Your task to perform on an android device: turn on priority inbox in the gmail app Image 0: 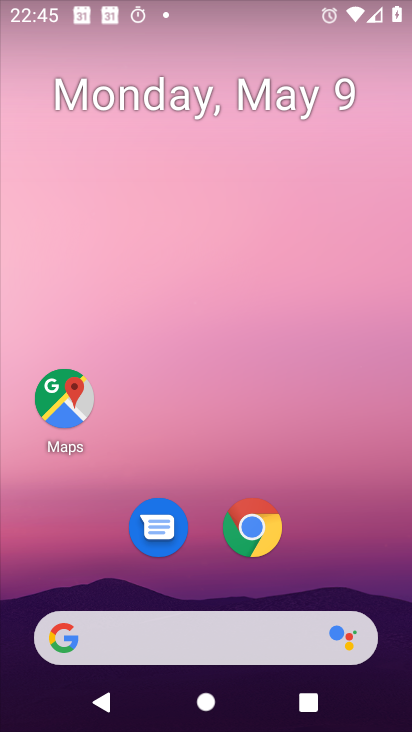
Step 0: drag from (296, 542) to (371, 63)
Your task to perform on an android device: turn on priority inbox in the gmail app Image 1: 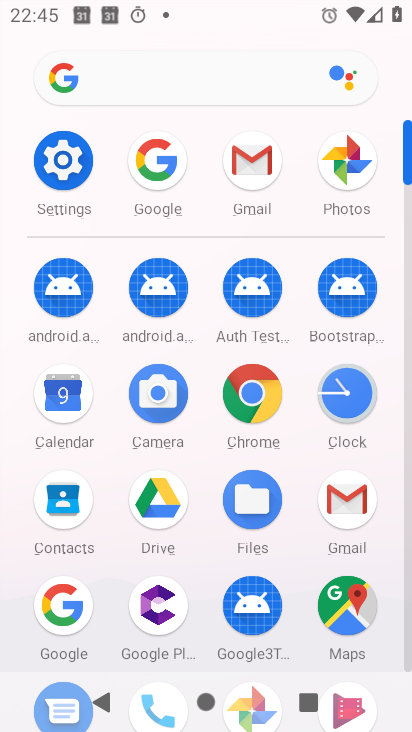
Step 1: click (258, 156)
Your task to perform on an android device: turn on priority inbox in the gmail app Image 2: 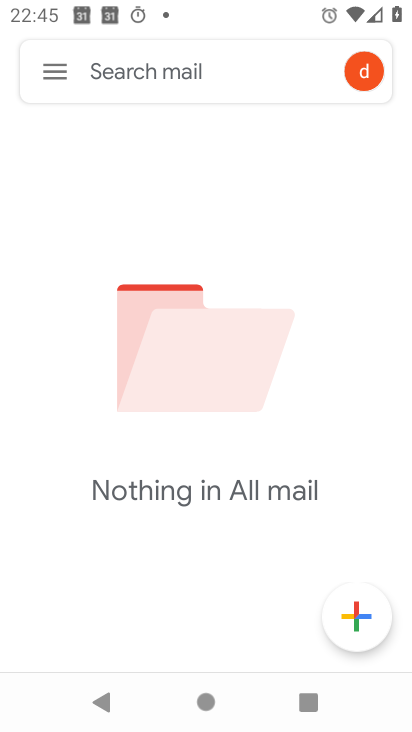
Step 2: click (52, 68)
Your task to perform on an android device: turn on priority inbox in the gmail app Image 3: 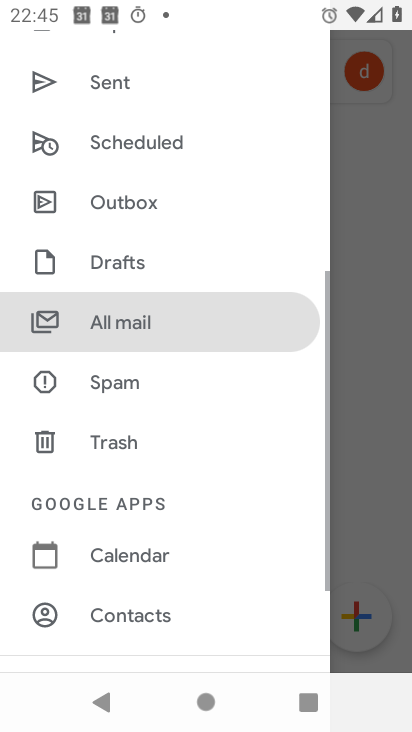
Step 3: drag from (166, 543) to (169, 179)
Your task to perform on an android device: turn on priority inbox in the gmail app Image 4: 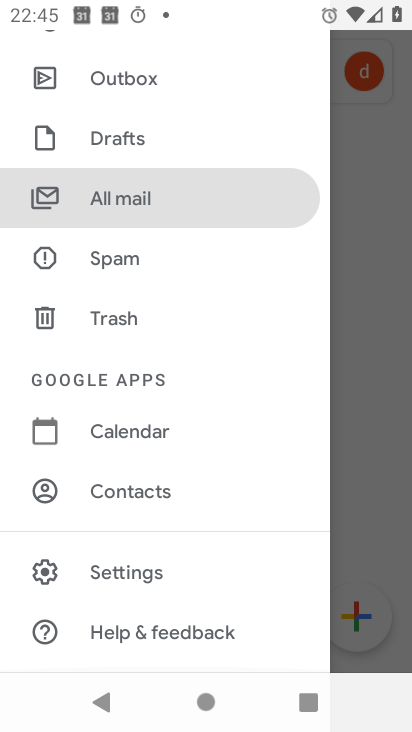
Step 4: click (127, 574)
Your task to perform on an android device: turn on priority inbox in the gmail app Image 5: 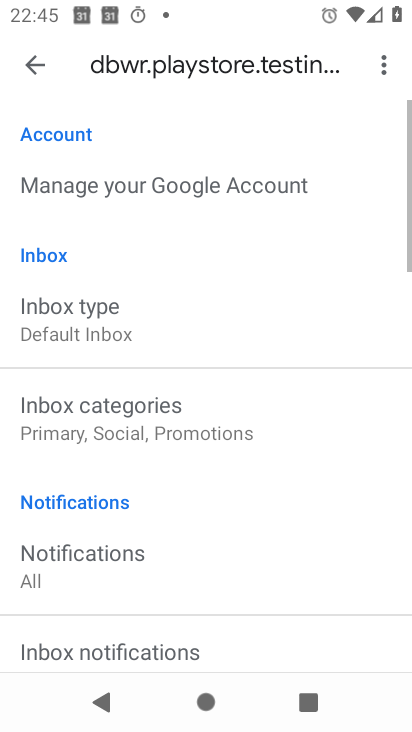
Step 5: drag from (201, 567) to (219, 105)
Your task to perform on an android device: turn on priority inbox in the gmail app Image 6: 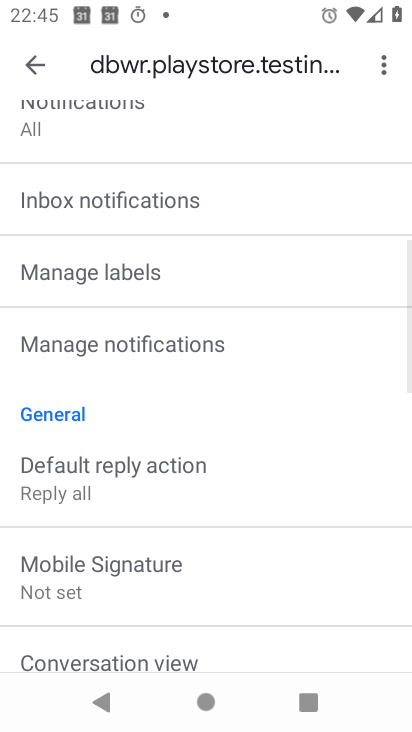
Step 6: drag from (163, 532) to (194, 45)
Your task to perform on an android device: turn on priority inbox in the gmail app Image 7: 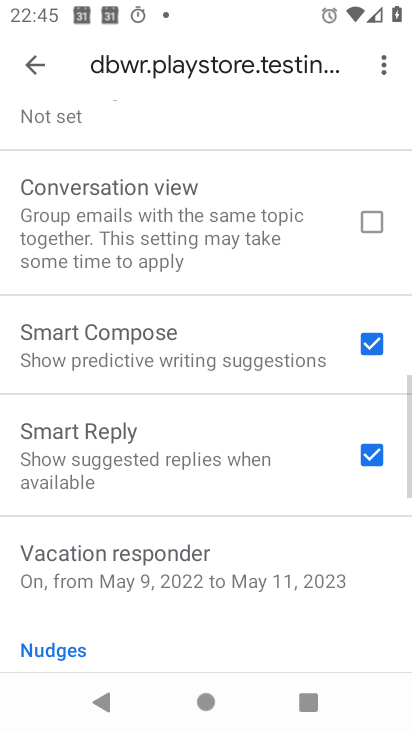
Step 7: drag from (168, 541) to (202, 12)
Your task to perform on an android device: turn on priority inbox in the gmail app Image 8: 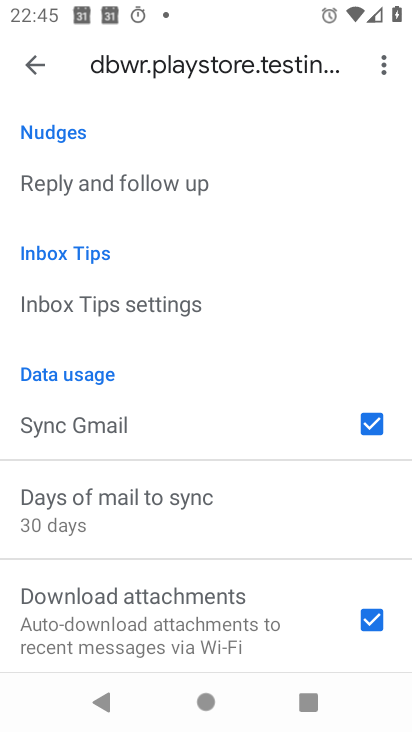
Step 8: drag from (121, 216) to (186, 648)
Your task to perform on an android device: turn on priority inbox in the gmail app Image 9: 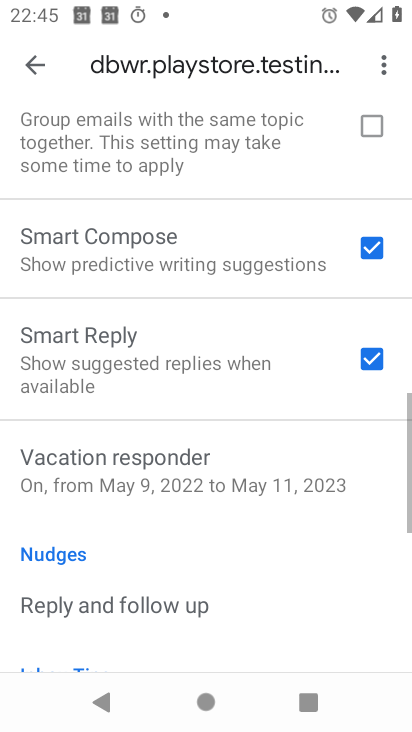
Step 9: drag from (103, 159) to (161, 686)
Your task to perform on an android device: turn on priority inbox in the gmail app Image 10: 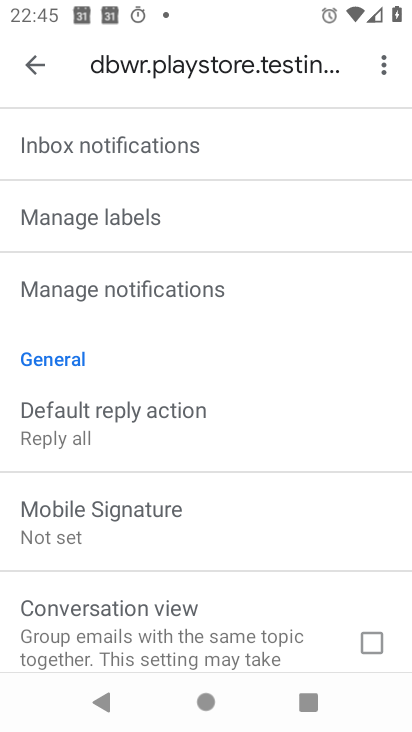
Step 10: drag from (108, 202) to (188, 621)
Your task to perform on an android device: turn on priority inbox in the gmail app Image 11: 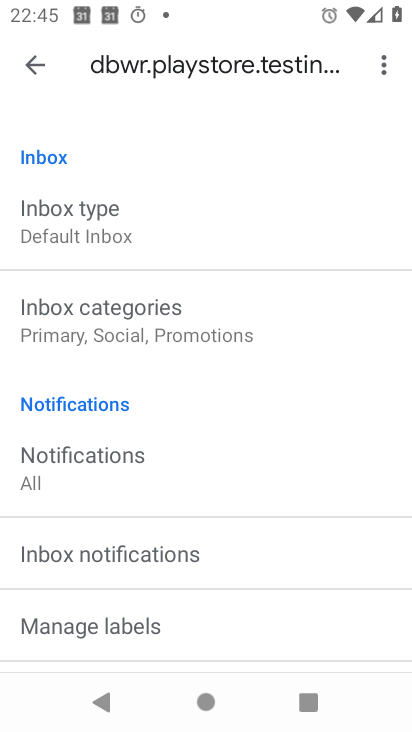
Step 11: click (114, 215)
Your task to perform on an android device: turn on priority inbox in the gmail app Image 12: 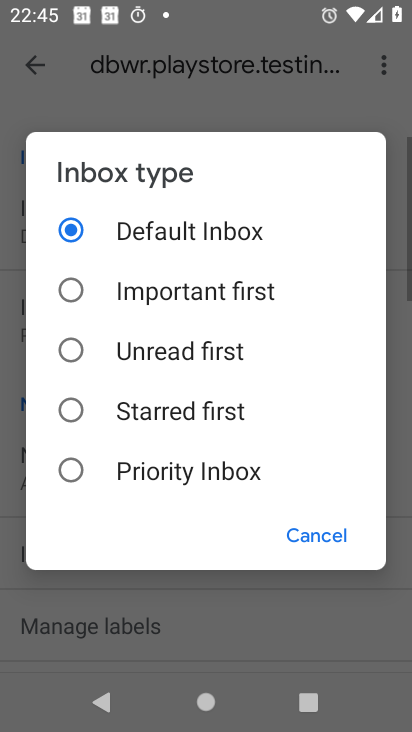
Step 12: click (63, 470)
Your task to perform on an android device: turn on priority inbox in the gmail app Image 13: 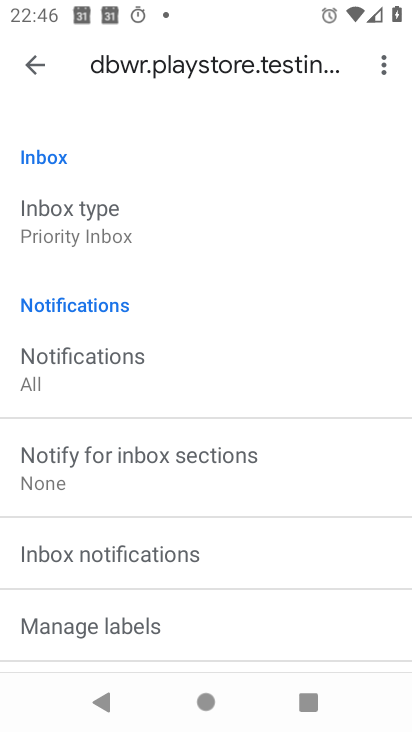
Step 13: task complete